Your task to perform on an android device: Find coffee shops on Maps Image 0: 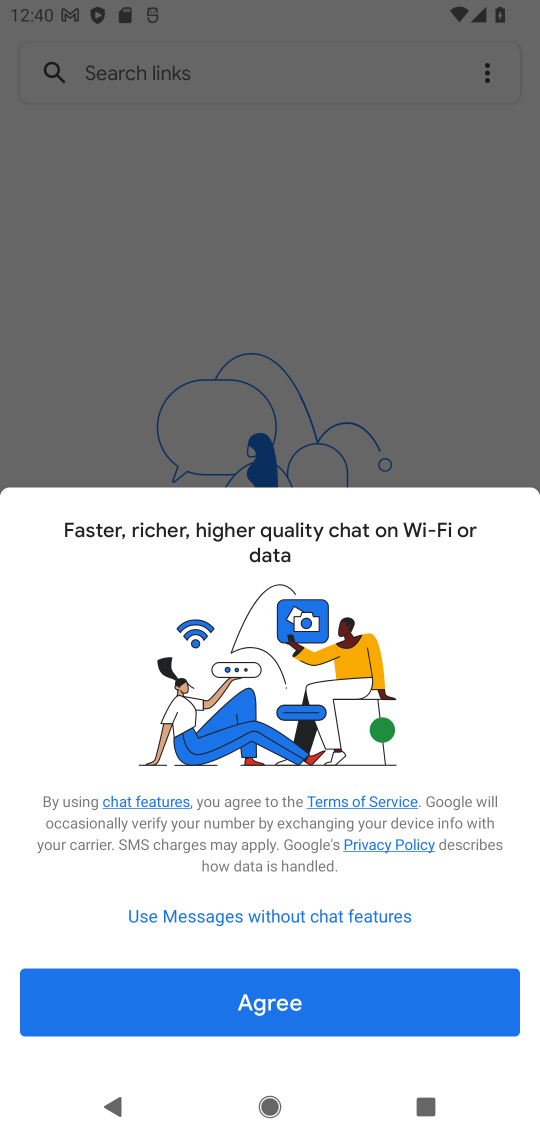
Step 0: press home button
Your task to perform on an android device: Find coffee shops on Maps Image 1: 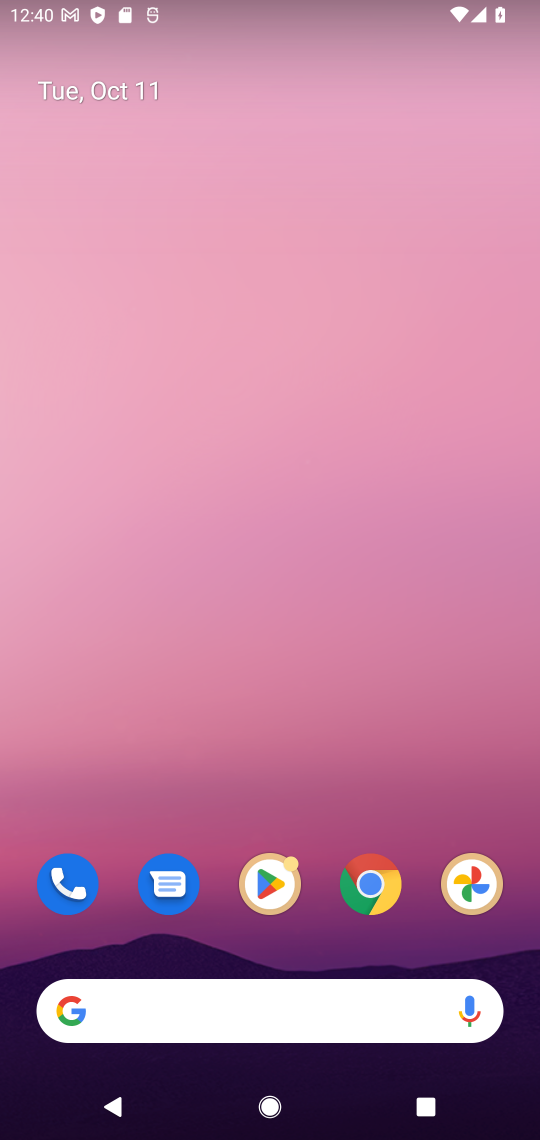
Step 1: drag from (273, 977) to (271, 164)
Your task to perform on an android device: Find coffee shops on Maps Image 2: 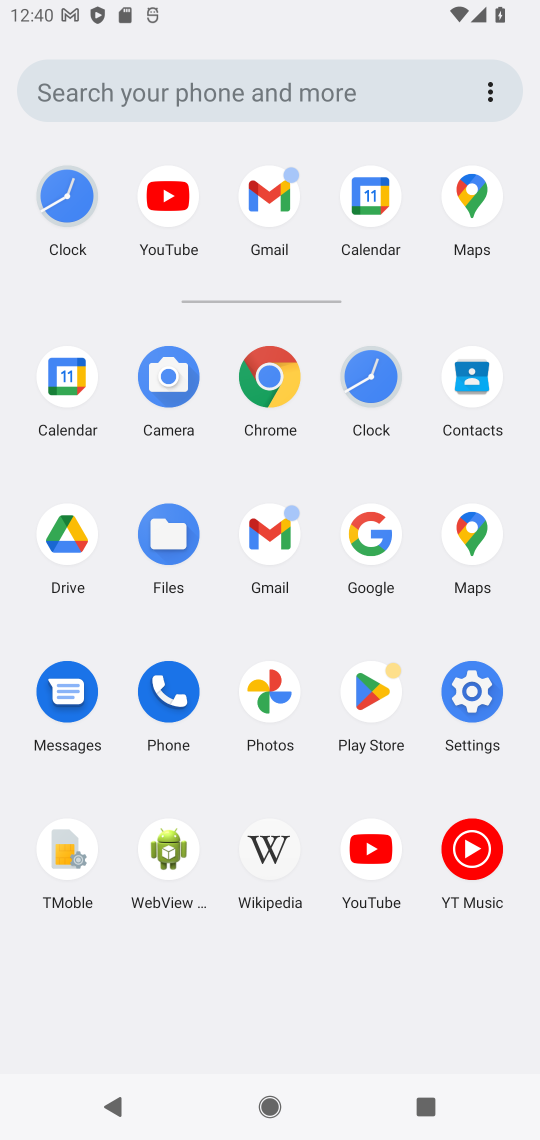
Step 2: click (372, 539)
Your task to perform on an android device: Find coffee shops on Maps Image 3: 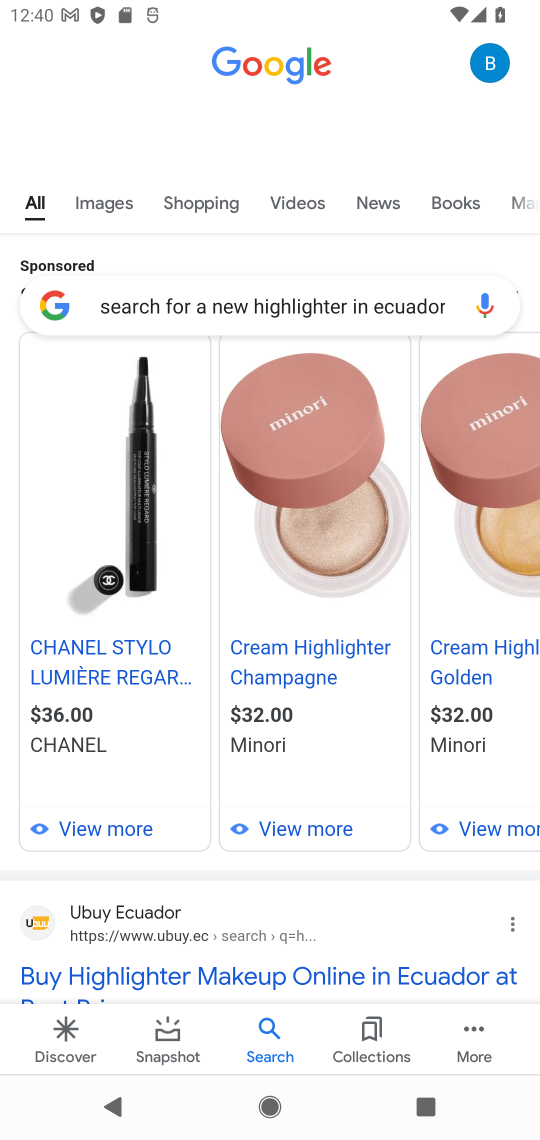
Step 3: click (276, 308)
Your task to perform on an android device: Find coffee shops on Maps Image 4: 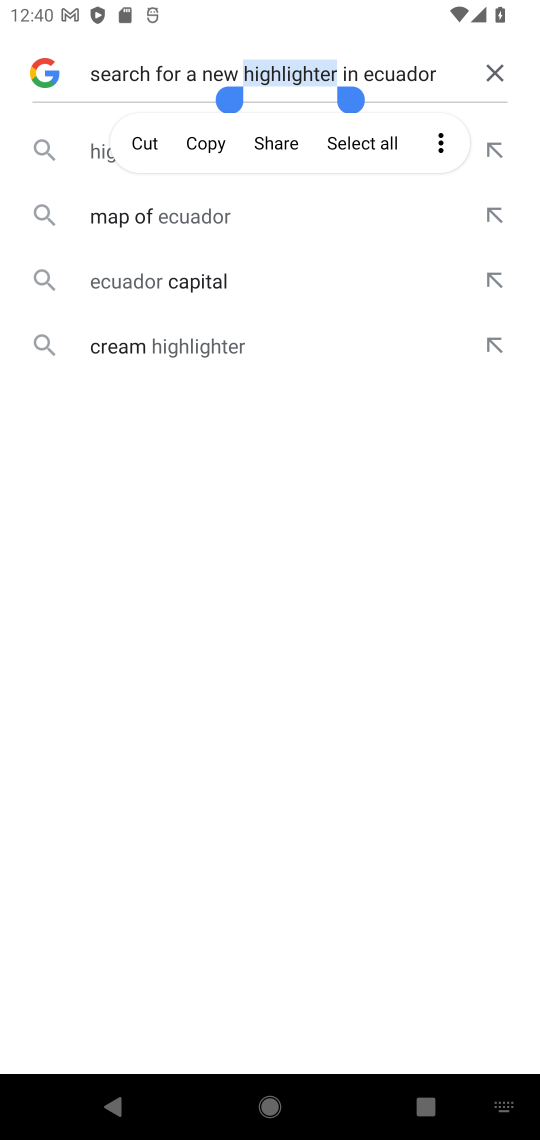
Step 4: click (494, 73)
Your task to perform on an android device: Find coffee shops on Maps Image 5: 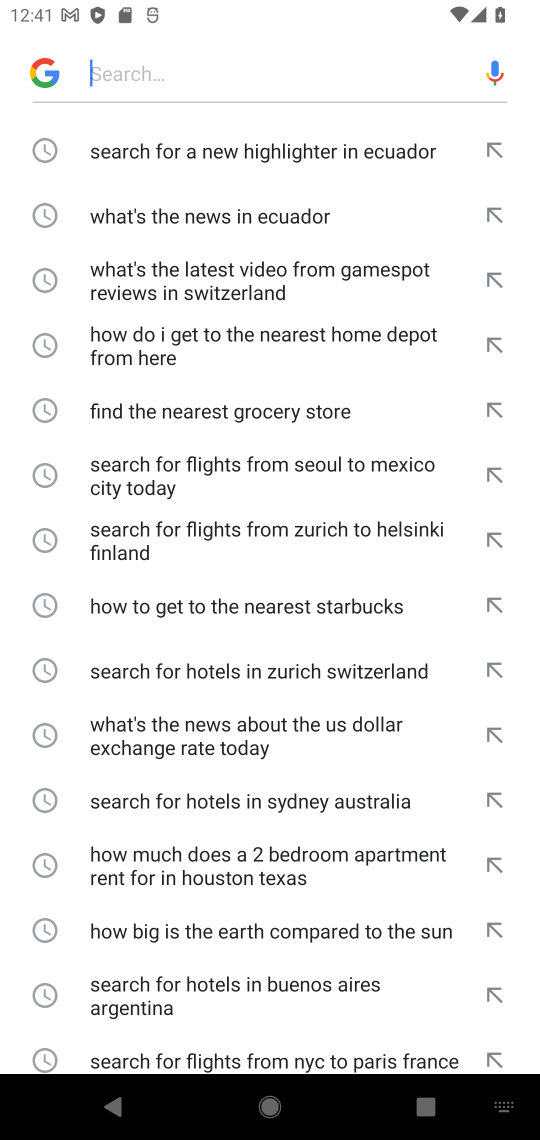
Step 5: click (217, 62)
Your task to perform on an android device: Find coffee shops on Maps Image 6: 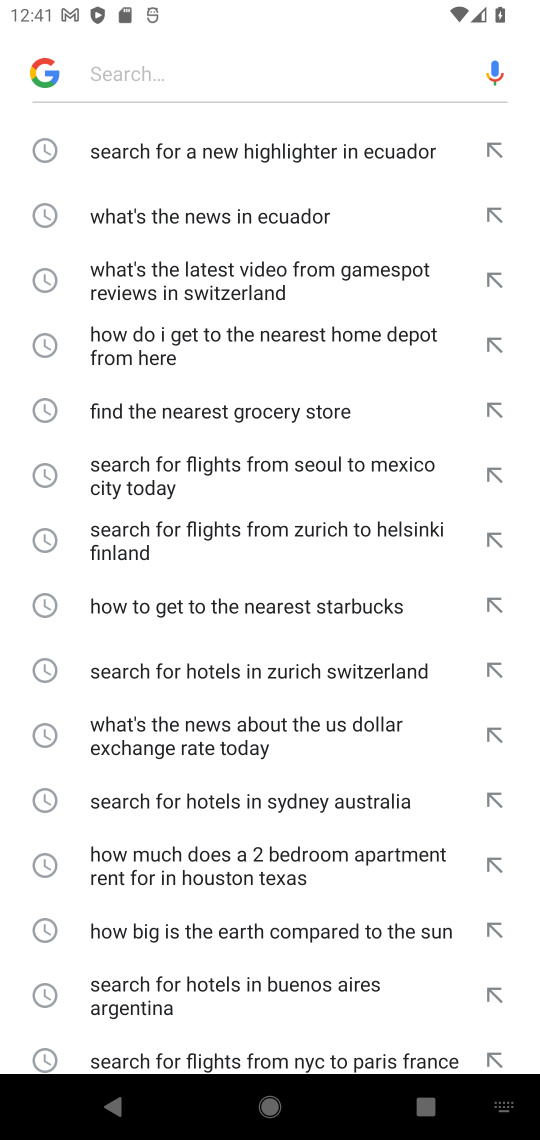
Step 6: type "Find coffee shops on Maps"
Your task to perform on an android device: Find coffee shops on Maps Image 7: 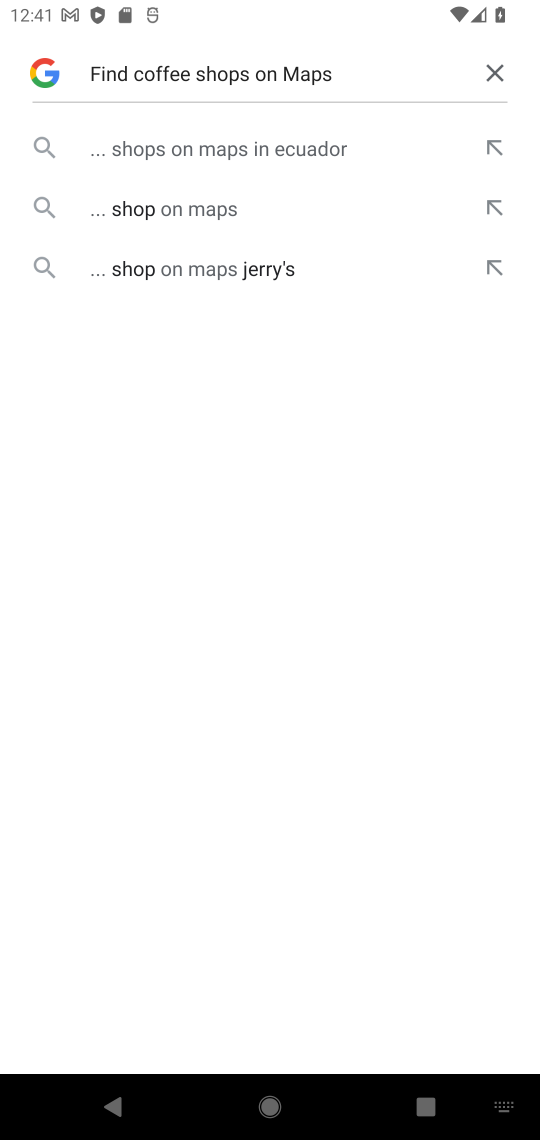
Step 7: click (240, 148)
Your task to perform on an android device: Find coffee shops on Maps Image 8: 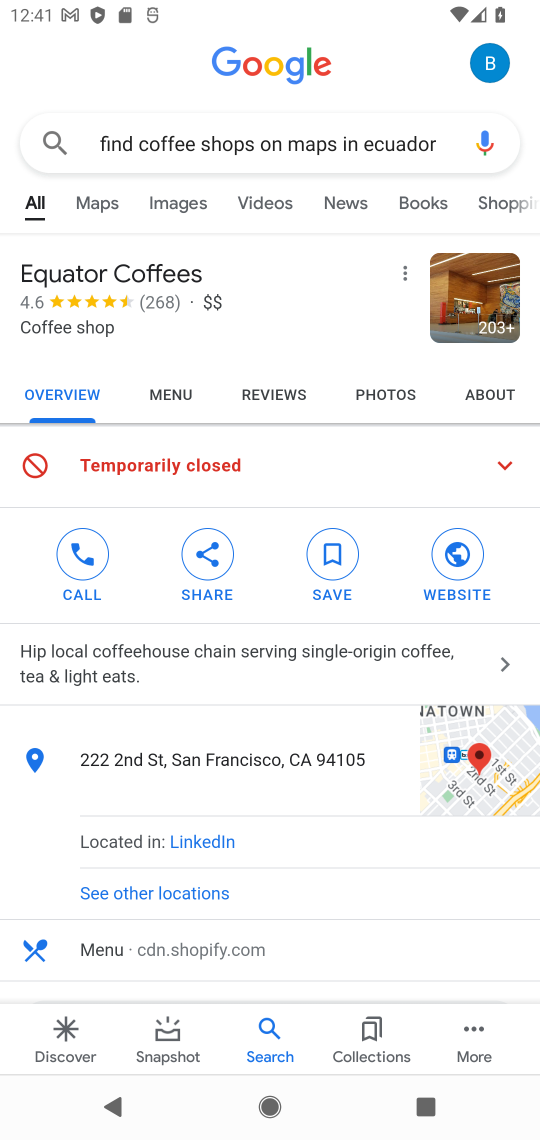
Step 8: task complete